Your task to perform on an android device: toggle show notifications on the lock screen Image 0: 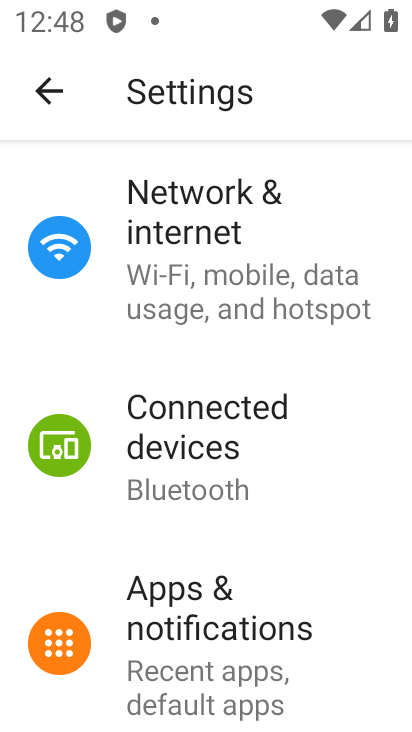
Step 0: click (193, 638)
Your task to perform on an android device: toggle show notifications on the lock screen Image 1: 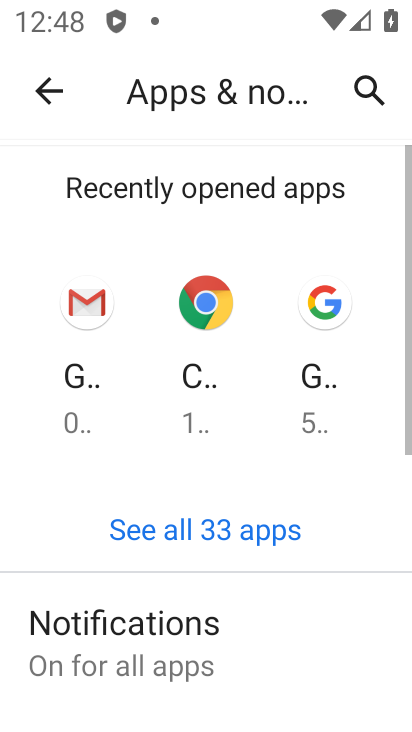
Step 1: drag from (263, 674) to (273, 350)
Your task to perform on an android device: toggle show notifications on the lock screen Image 2: 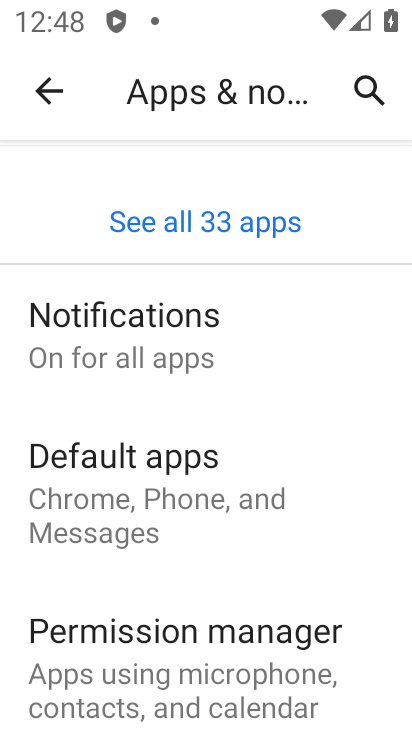
Step 2: click (130, 343)
Your task to perform on an android device: toggle show notifications on the lock screen Image 3: 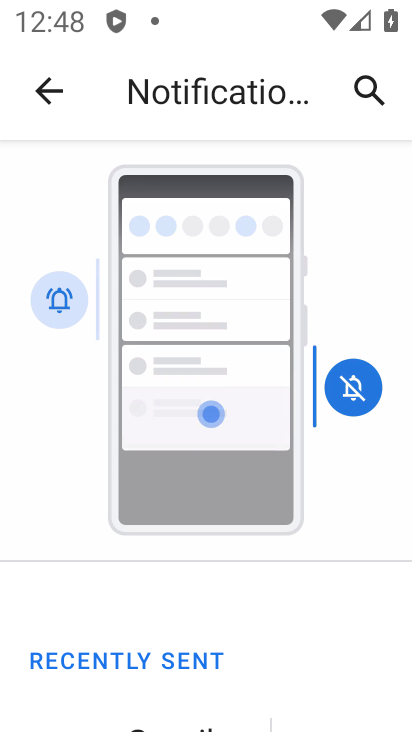
Step 3: drag from (185, 700) to (184, 365)
Your task to perform on an android device: toggle show notifications on the lock screen Image 4: 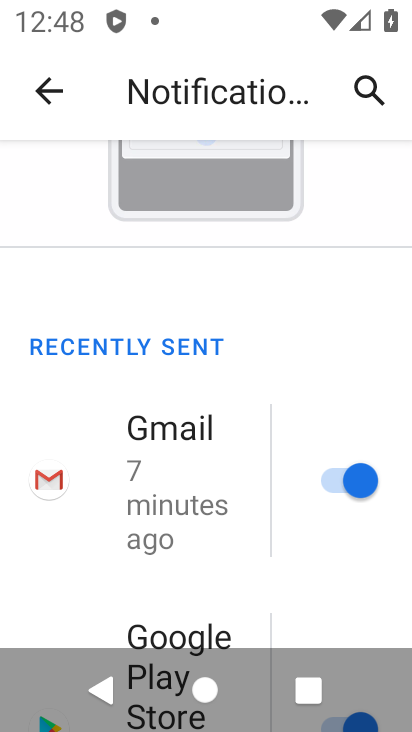
Step 4: drag from (248, 625) to (238, 206)
Your task to perform on an android device: toggle show notifications on the lock screen Image 5: 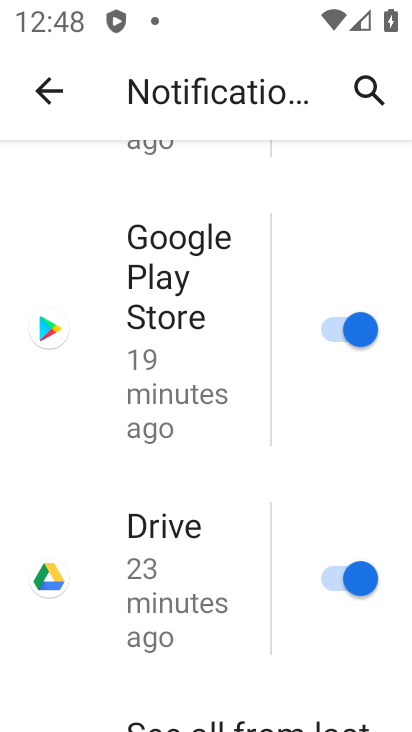
Step 5: drag from (237, 671) to (229, 270)
Your task to perform on an android device: toggle show notifications on the lock screen Image 6: 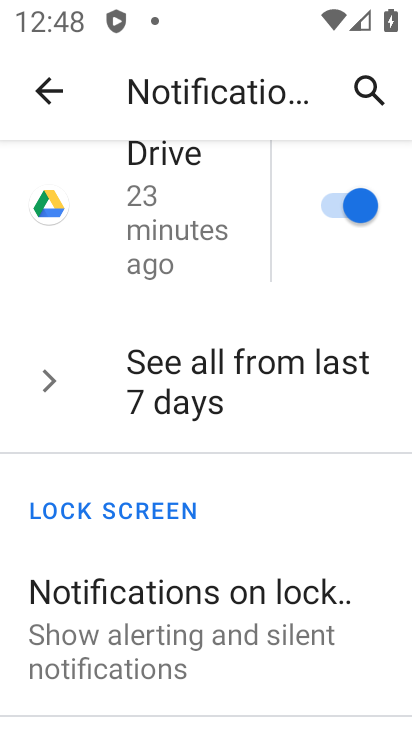
Step 6: drag from (212, 655) to (210, 454)
Your task to perform on an android device: toggle show notifications on the lock screen Image 7: 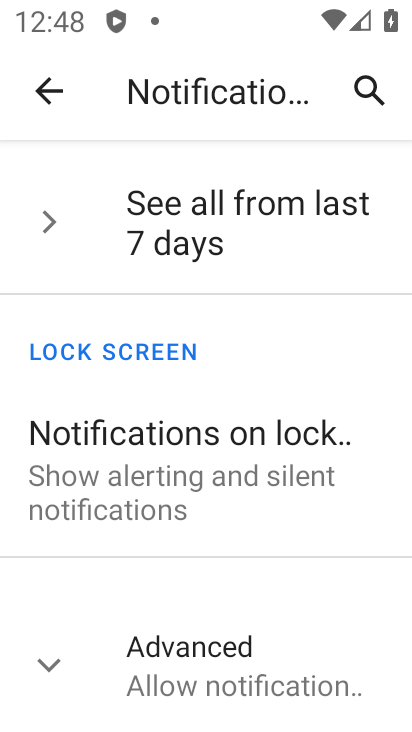
Step 7: click (152, 483)
Your task to perform on an android device: toggle show notifications on the lock screen Image 8: 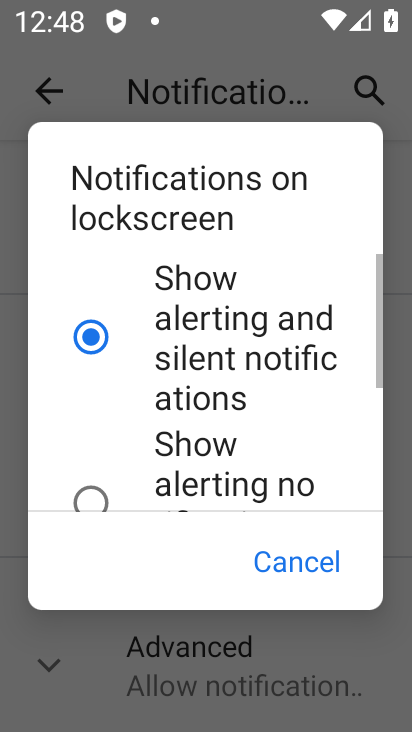
Step 8: click (97, 494)
Your task to perform on an android device: toggle show notifications on the lock screen Image 9: 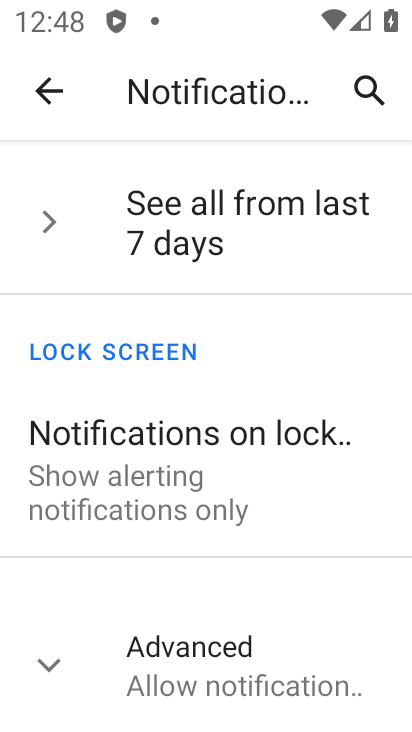
Step 9: task complete